Your task to perform on an android device: change the clock style Image 0: 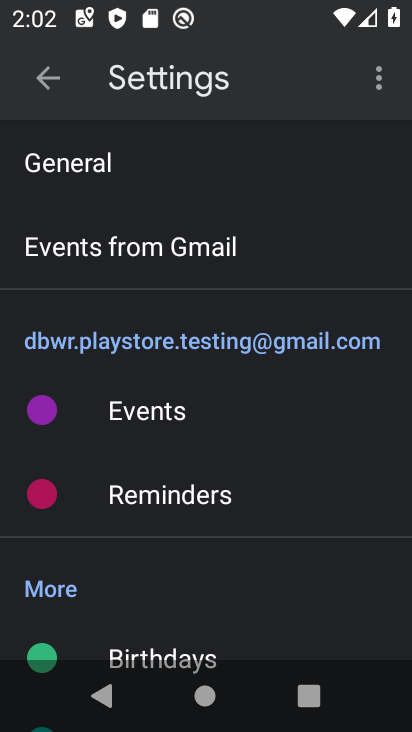
Step 0: press home button
Your task to perform on an android device: change the clock style Image 1: 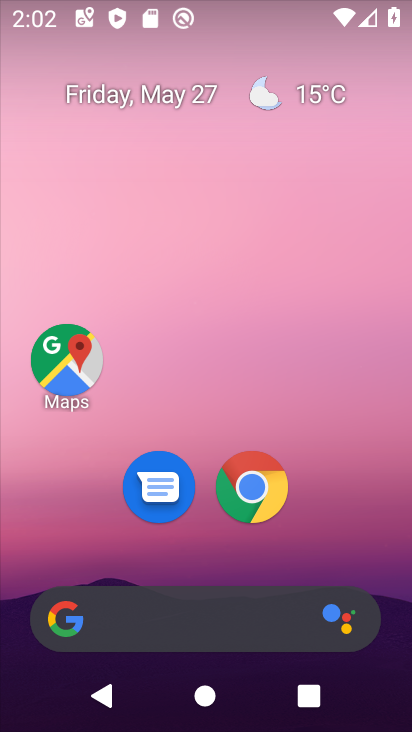
Step 1: drag from (199, 565) to (207, 219)
Your task to perform on an android device: change the clock style Image 2: 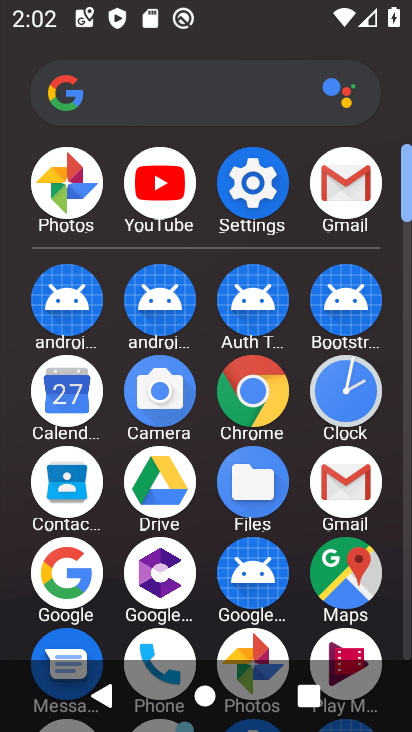
Step 2: click (361, 392)
Your task to perform on an android device: change the clock style Image 3: 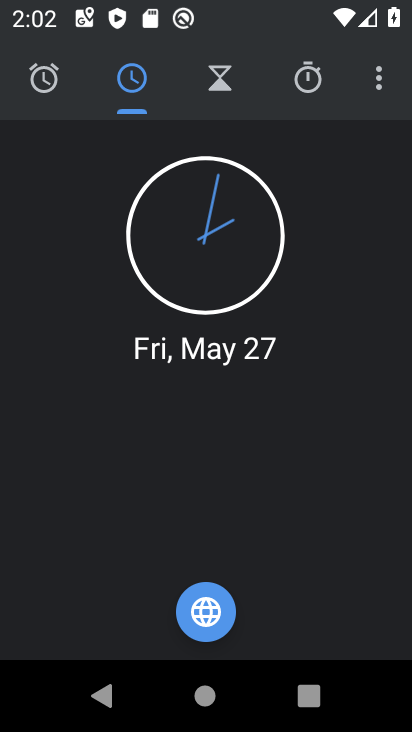
Step 3: click (377, 97)
Your task to perform on an android device: change the clock style Image 4: 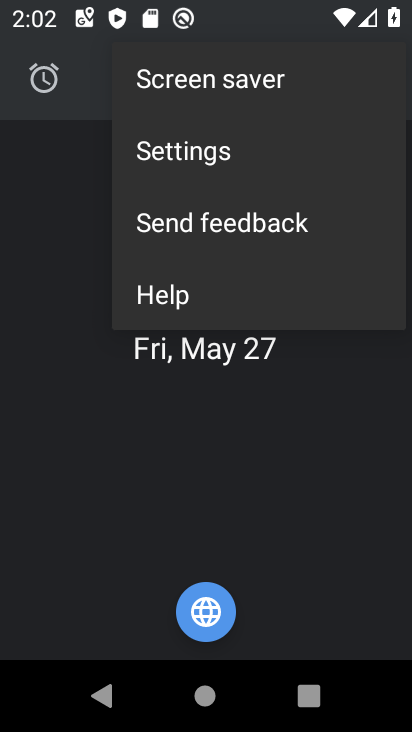
Step 4: click (196, 163)
Your task to perform on an android device: change the clock style Image 5: 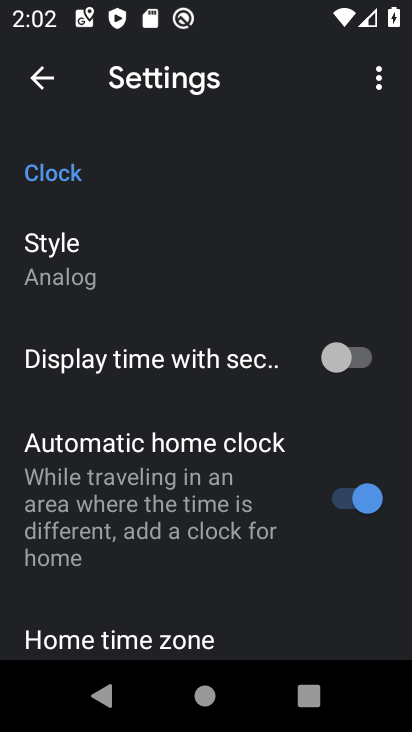
Step 5: click (138, 253)
Your task to perform on an android device: change the clock style Image 6: 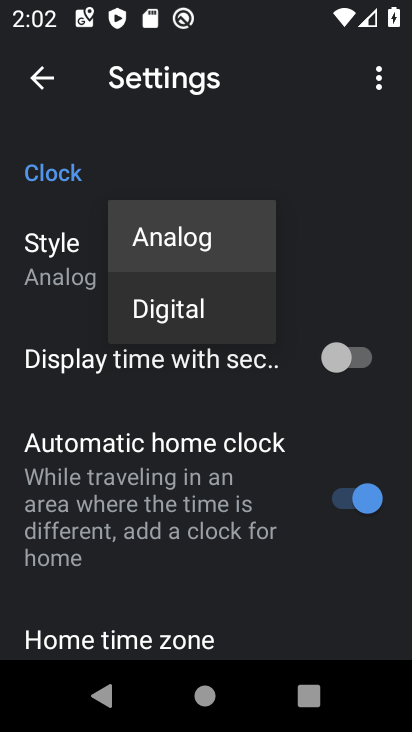
Step 6: click (157, 294)
Your task to perform on an android device: change the clock style Image 7: 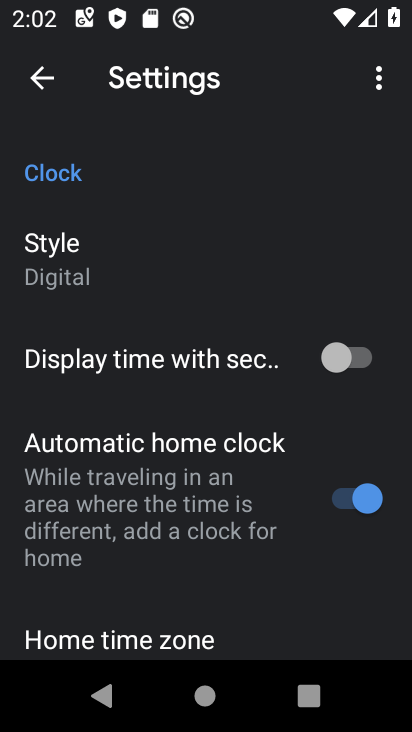
Step 7: task complete